Your task to perform on an android device: turn on improve location accuracy Image 0: 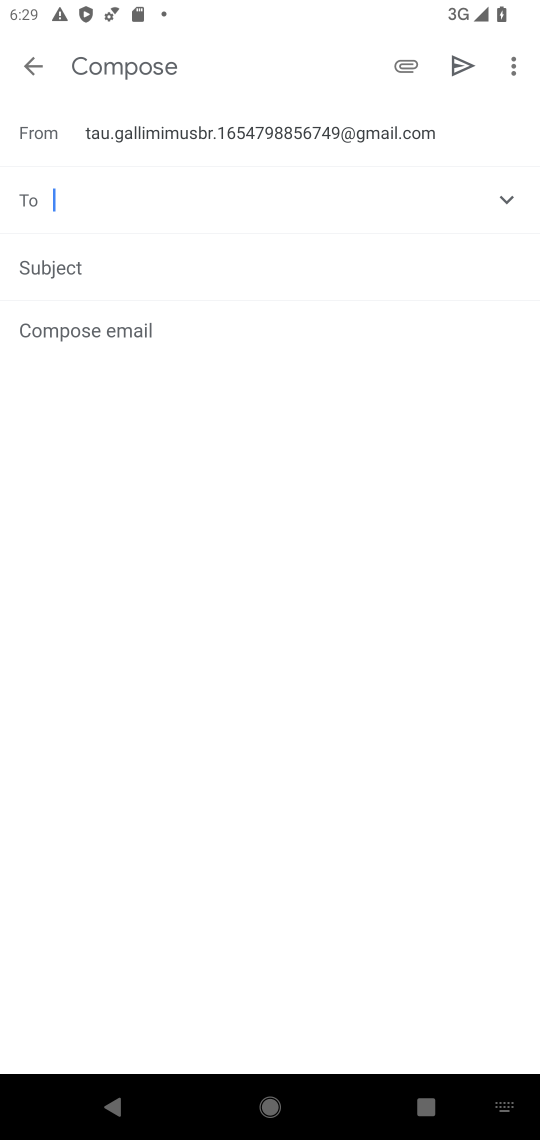
Step 0: press home button
Your task to perform on an android device: turn on improve location accuracy Image 1: 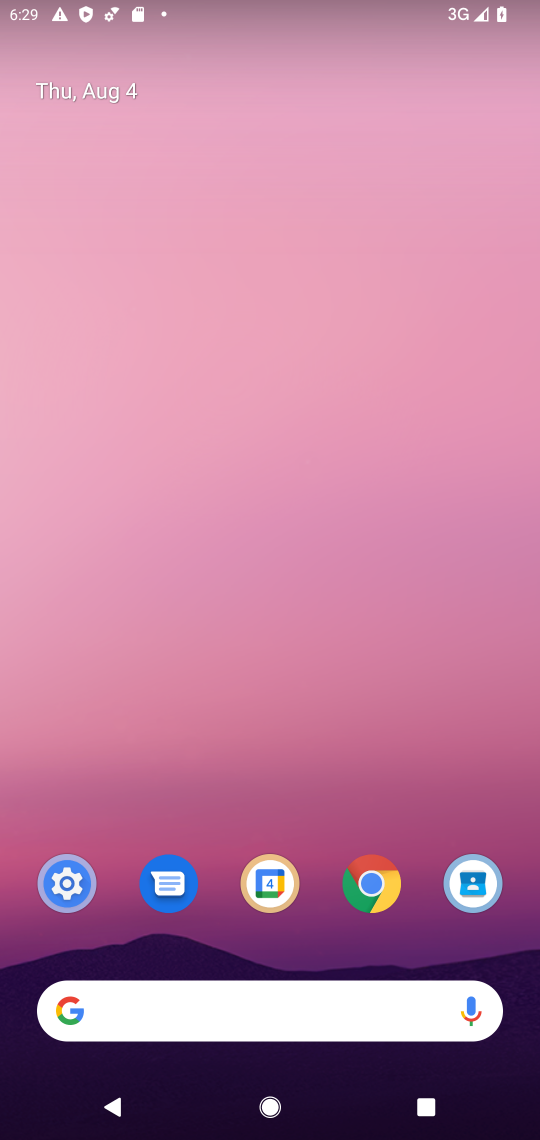
Step 1: click (68, 870)
Your task to perform on an android device: turn on improve location accuracy Image 2: 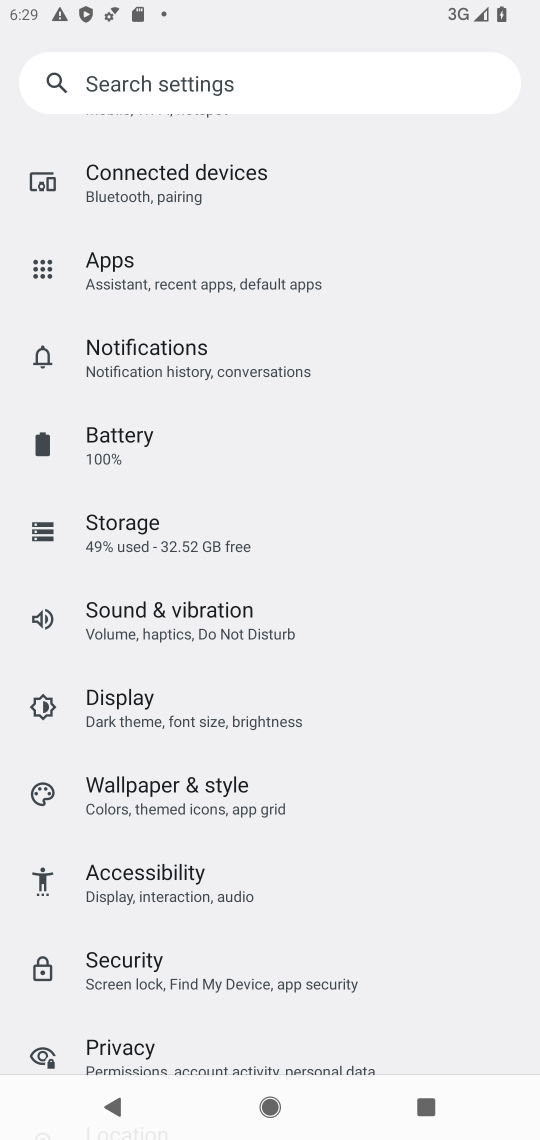
Step 2: drag from (309, 994) to (340, 157)
Your task to perform on an android device: turn on improve location accuracy Image 3: 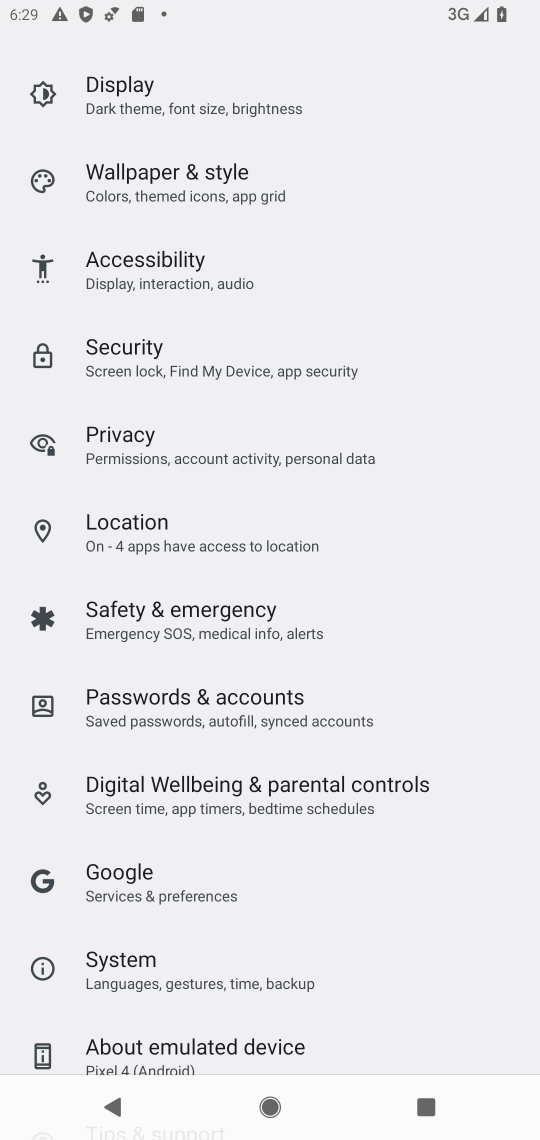
Step 3: click (299, 526)
Your task to perform on an android device: turn on improve location accuracy Image 4: 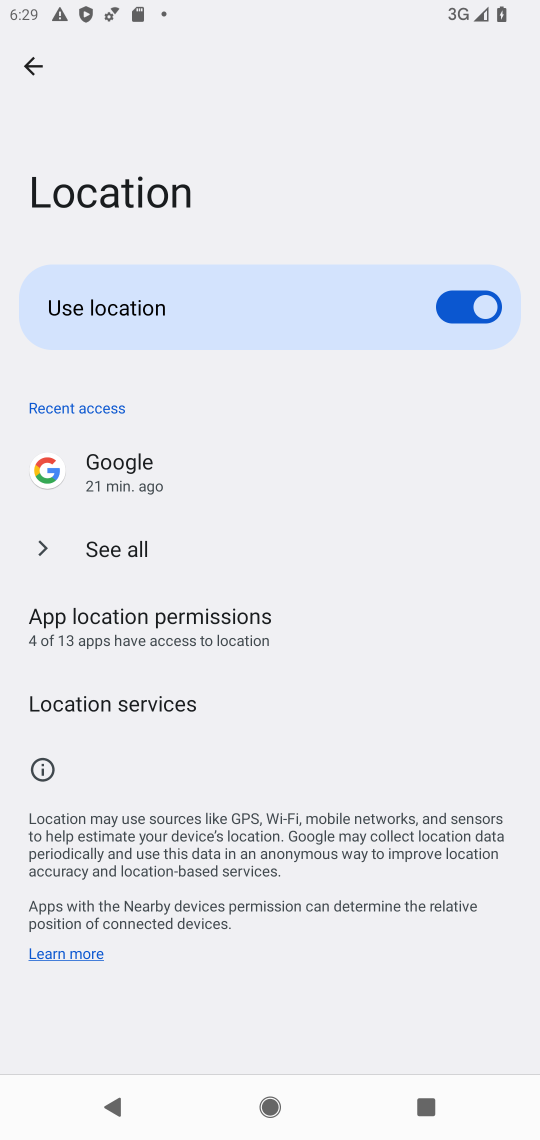
Step 4: click (259, 708)
Your task to perform on an android device: turn on improve location accuracy Image 5: 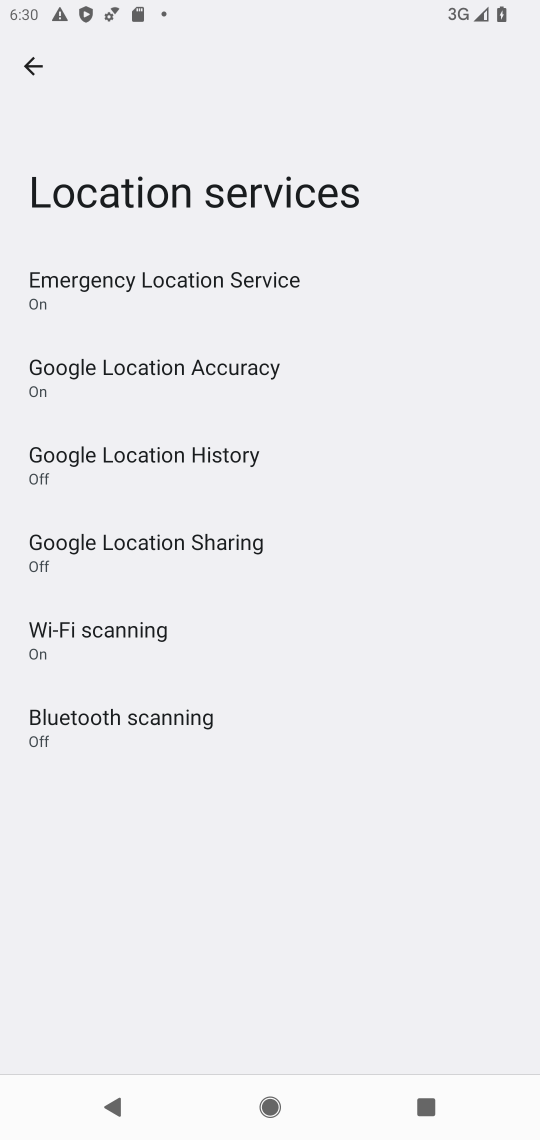
Step 5: click (289, 373)
Your task to perform on an android device: turn on improve location accuracy Image 6: 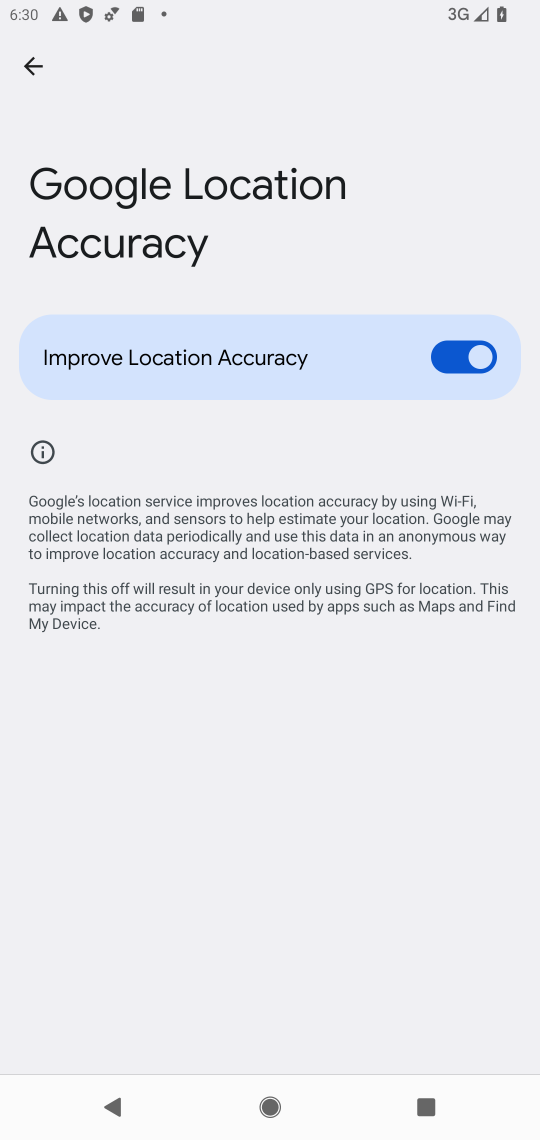
Step 6: task complete